Your task to perform on an android device: stop showing notifications on the lock screen Image 0: 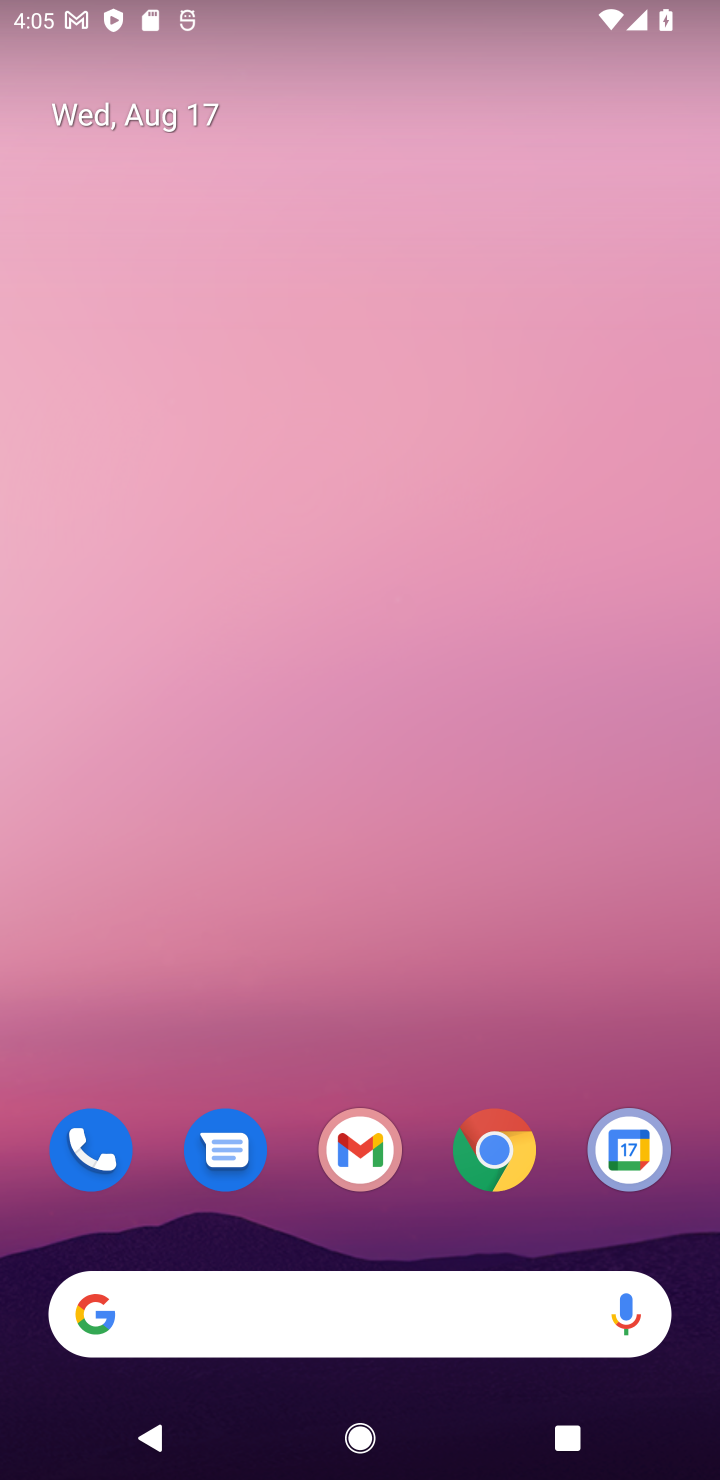
Step 0: drag from (582, 1009) to (360, 42)
Your task to perform on an android device: stop showing notifications on the lock screen Image 1: 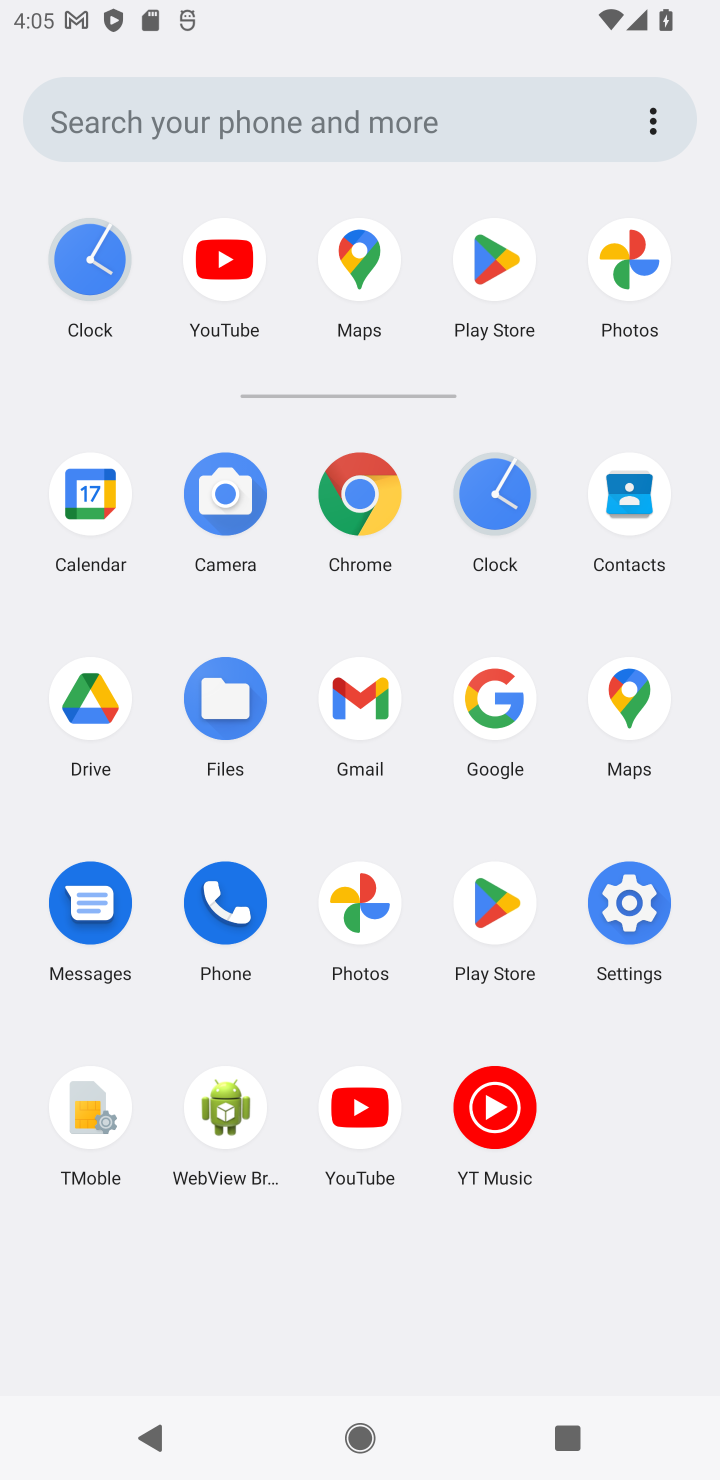
Step 1: click (635, 906)
Your task to perform on an android device: stop showing notifications on the lock screen Image 2: 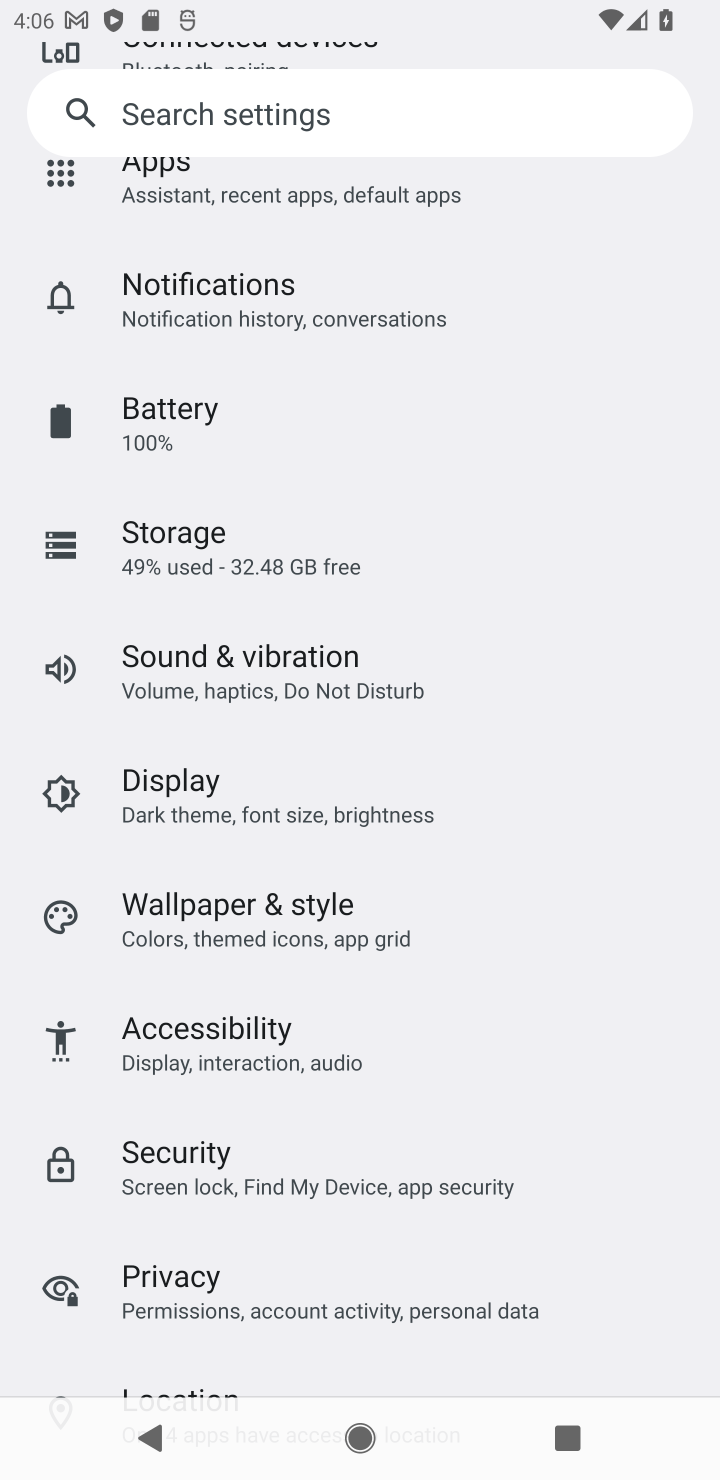
Step 2: click (291, 318)
Your task to perform on an android device: stop showing notifications on the lock screen Image 3: 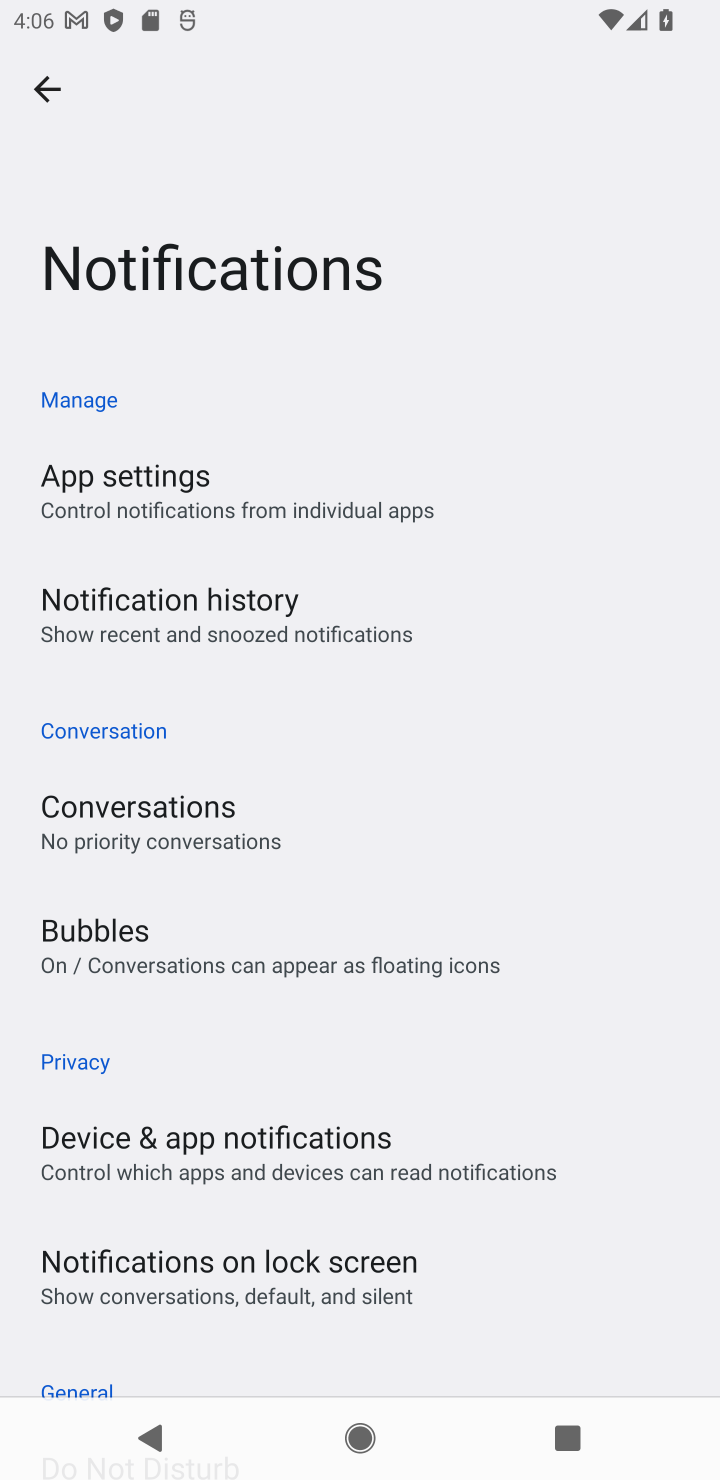
Step 3: click (362, 1294)
Your task to perform on an android device: stop showing notifications on the lock screen Image 4: 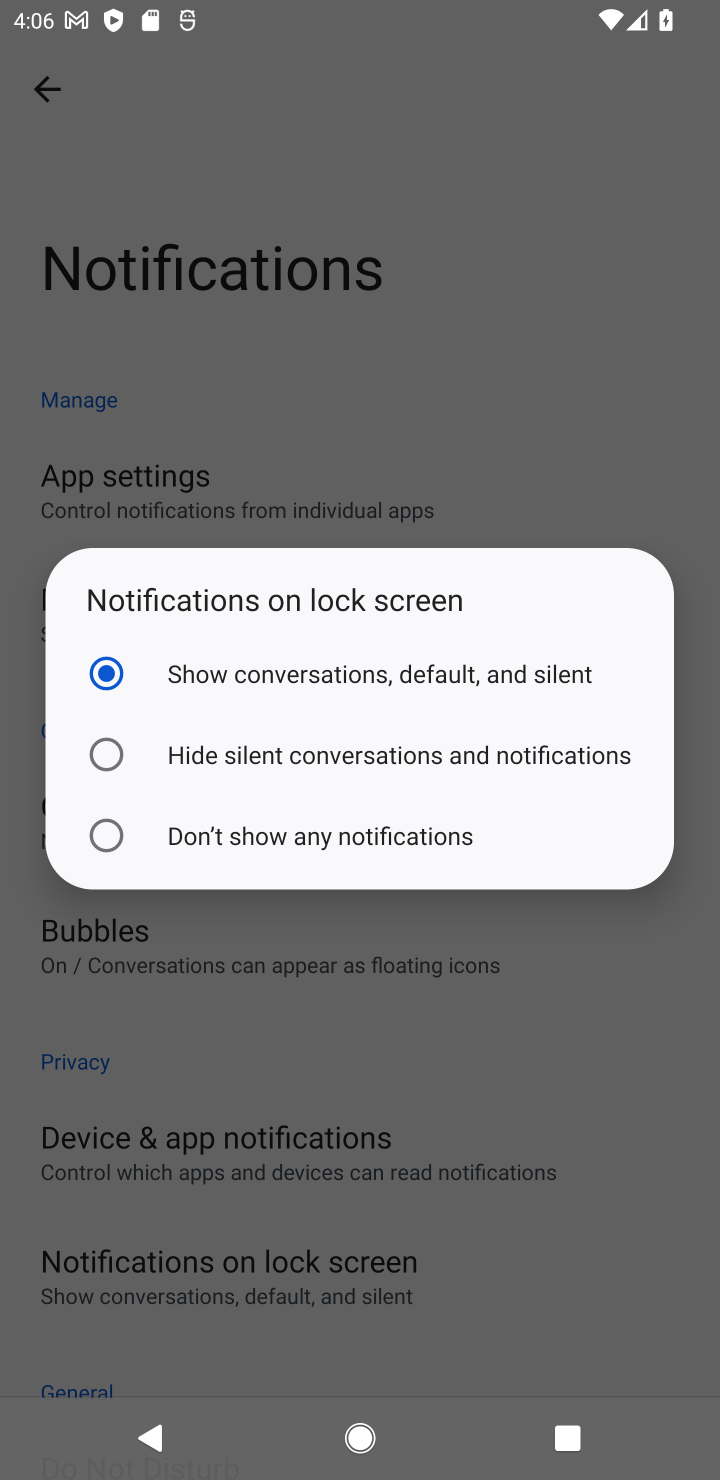
Step 4: click (138, 848)
Your task to perform on an android device: stop showing notifications on the lock screen Image 5: 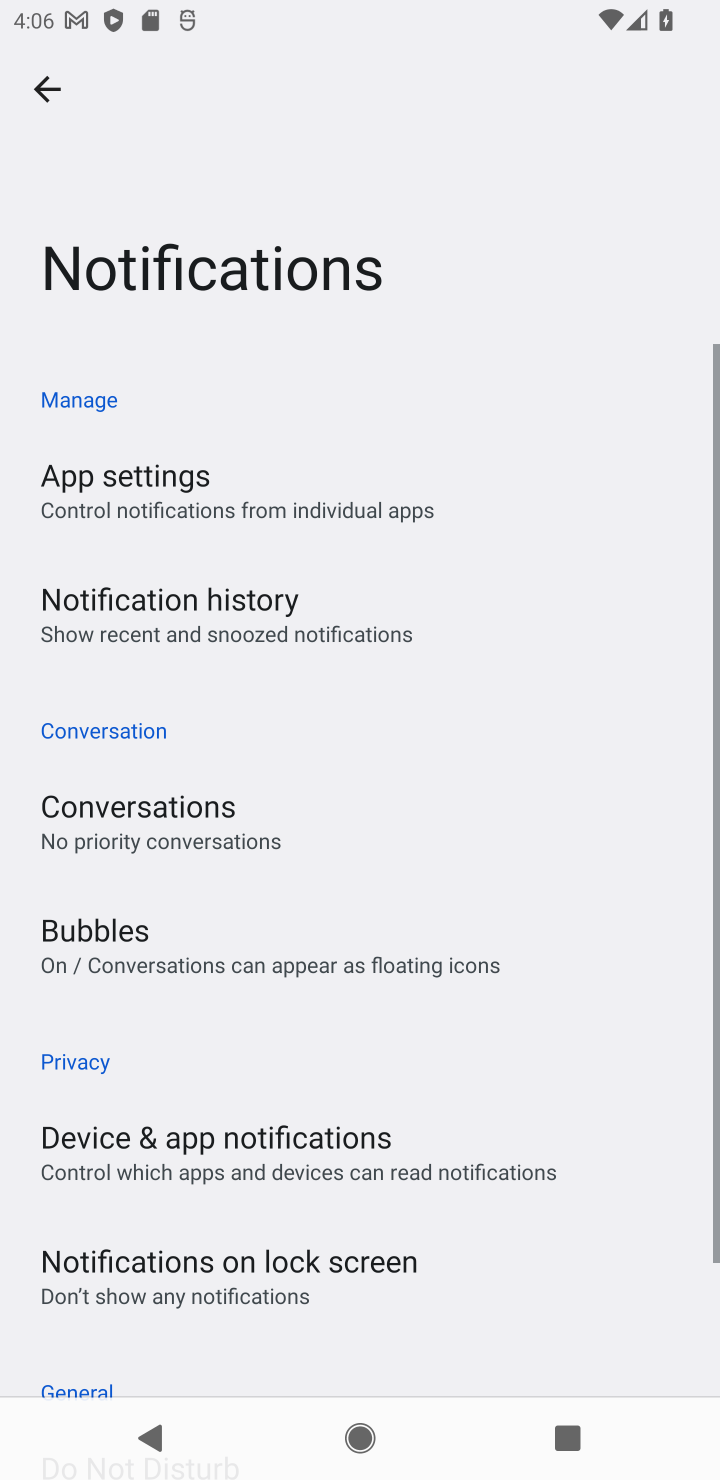
Step 5: task complete